Your task to perform on an android device: Open Reddit.com Image 0: 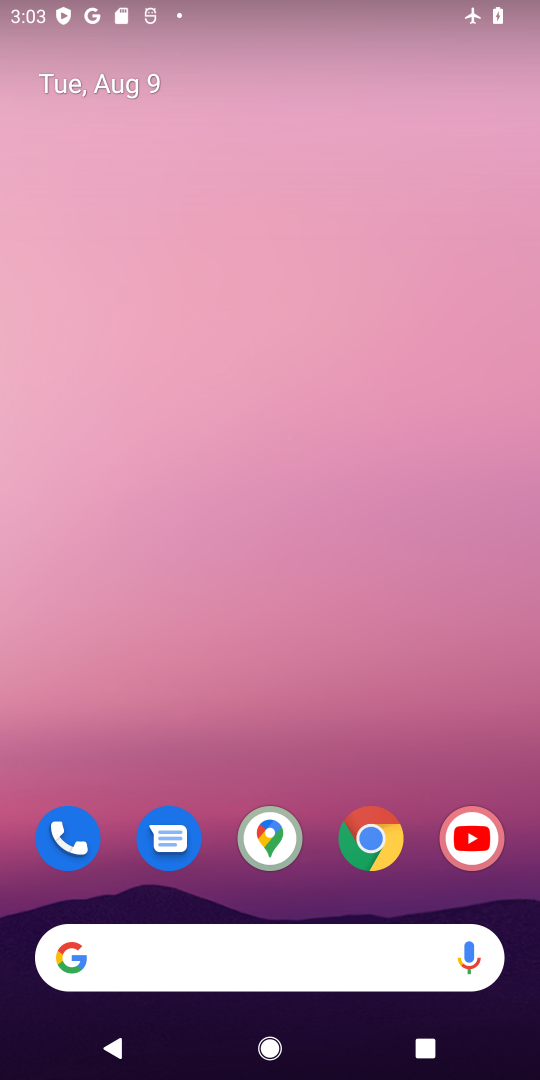
Step 0: drag from (332, 768) to (274, 63)
Your task to perform on an android device: Open Reddit.com Image 1: 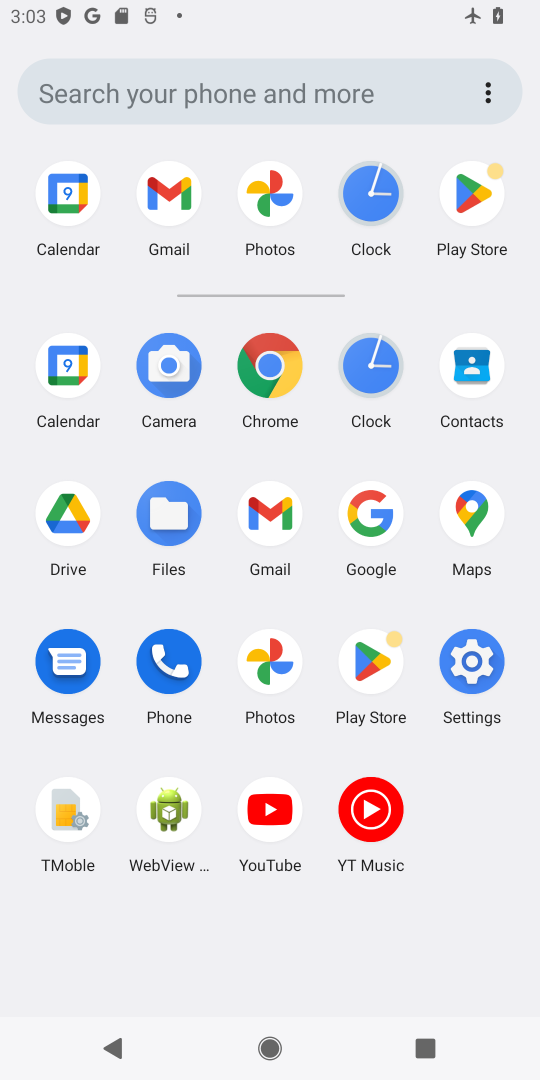
Step 1: click (276, 370)
Your task to perform on an android device: Open Reddit.com Image 2: 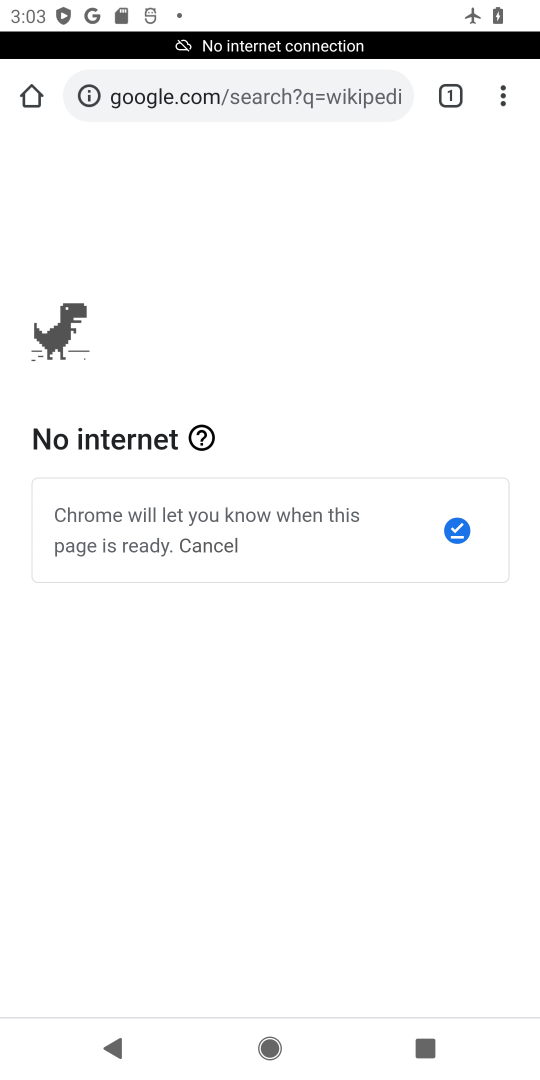
Step 2: click (263, 107)
Your task to perform on an android device: Open Reddit.com Image 3: 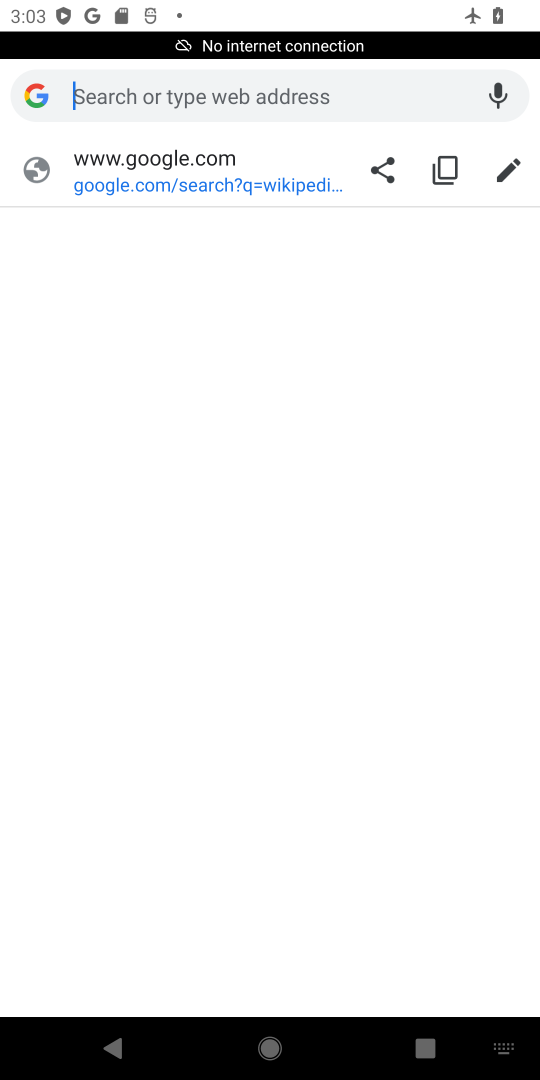
Step 3: type "reddit.com"
Your task to perform on an android device: Open Reddit.com Image 4: 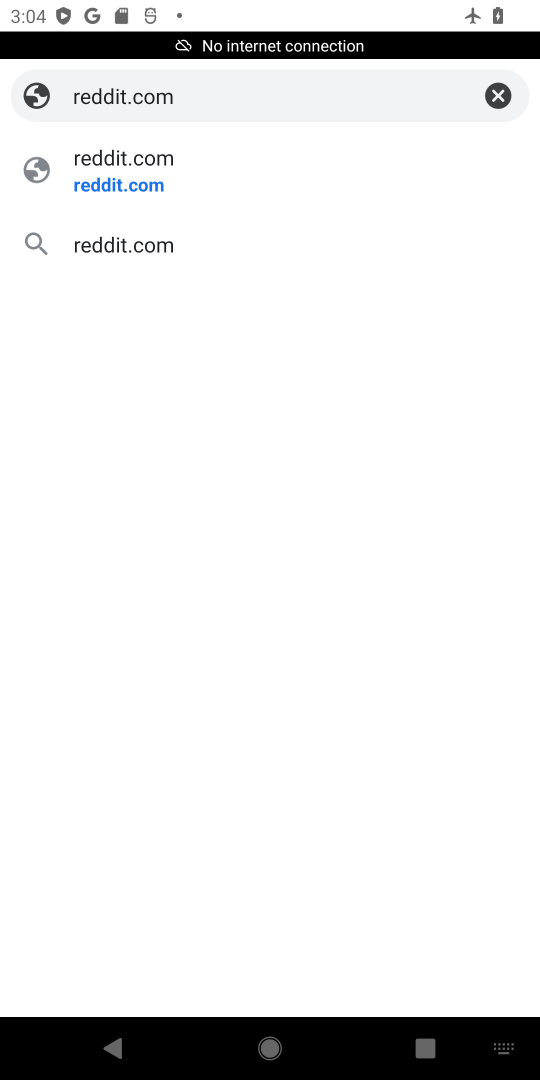
Step 4: click (65, 168)
Your task to perform on an android device: Open Reddit.com Image 5: 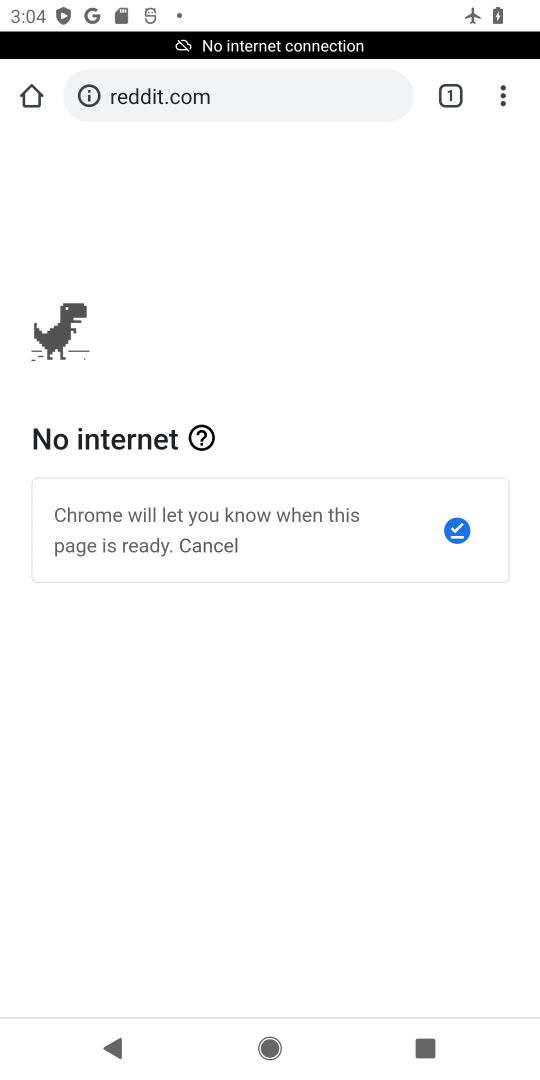
Step 5: task complete